Your task to perform on an android device: check the backup settings in the google photos Image 0: 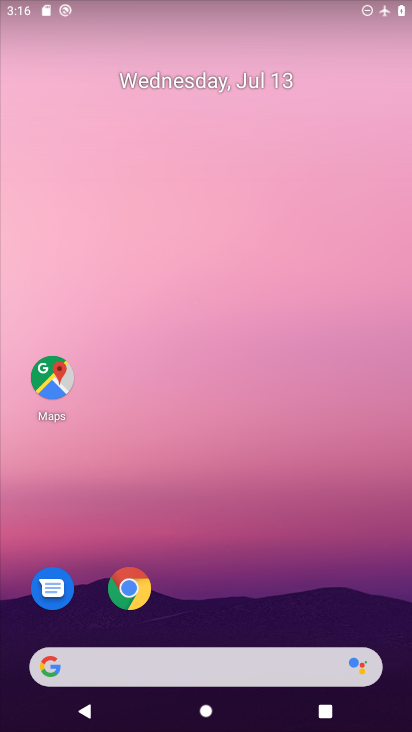
Step 0: drag from (205, 622) to (165, 139)
Your task to perform on an android device: check the backup settings in the google photos Image 1: 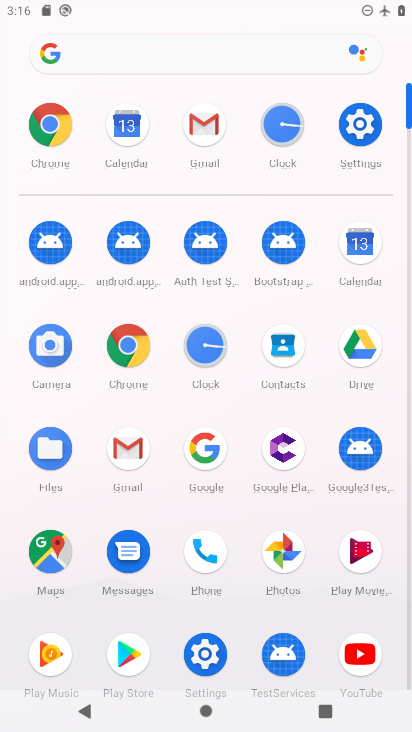
Step 1: click (280, 549)
Your task to perform on an android device: check the backup settings in the google photos Image 2: 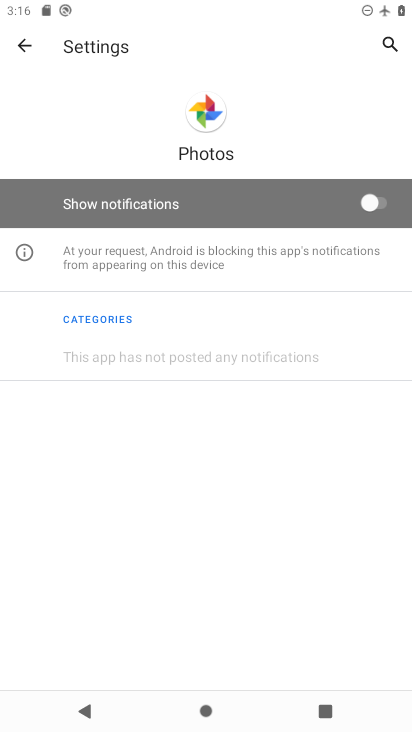
Step 2: click (13, 33)
Your task to perform on an android device: check the backup settings in the google photos Image 3: 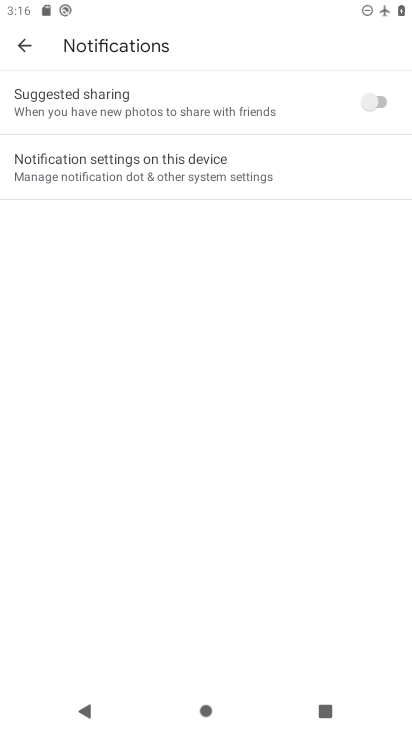
Step 3: click (25, 42)
Your task to perform on an android device: check the backup settings in the google photos Image 4: 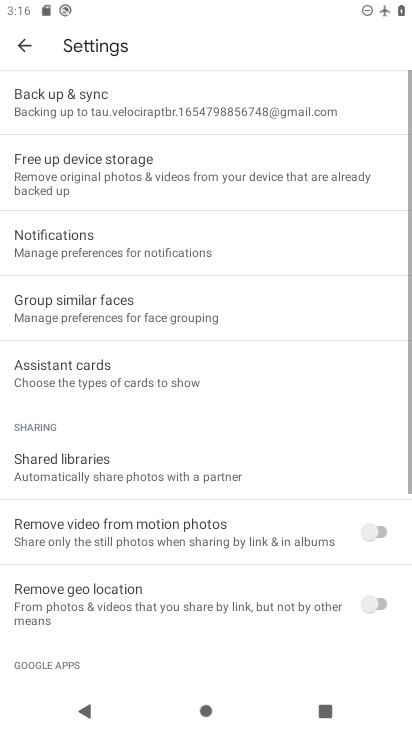
Step 4: click (17, 45)
Your task to perform on an android device: check the backup settings in the google photos Image 5: 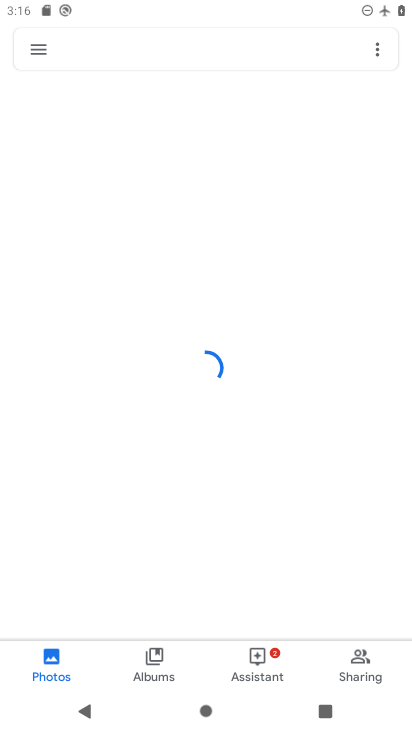
Step 5: drag from (31, 46) to (49, 300)
Your task to perform on an android device: check the backup settings in the google photos Image 6: 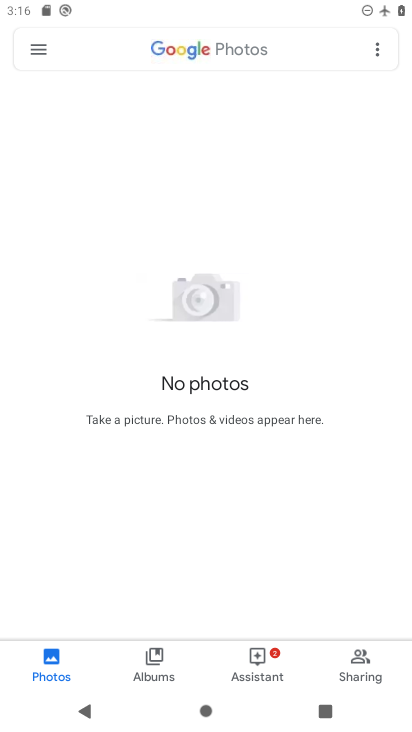
Step 6: click (32, 37)
Your task to perform on an android device: check the backup settings in the google photos Image 7: 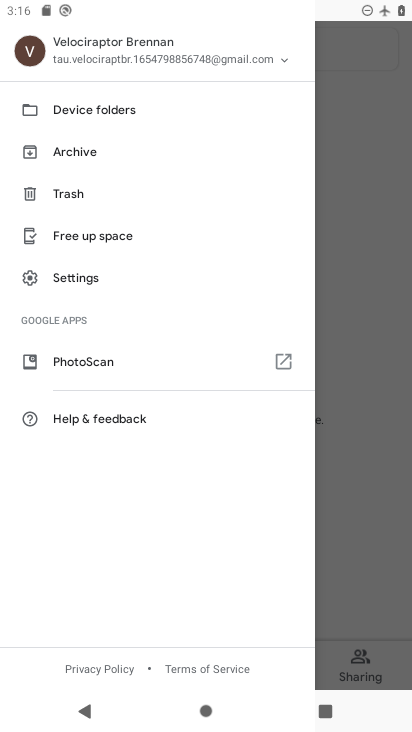
Step 7: click (73, 267)
Your task to perform on an android device: check the backup settings in the google photos Image 8: 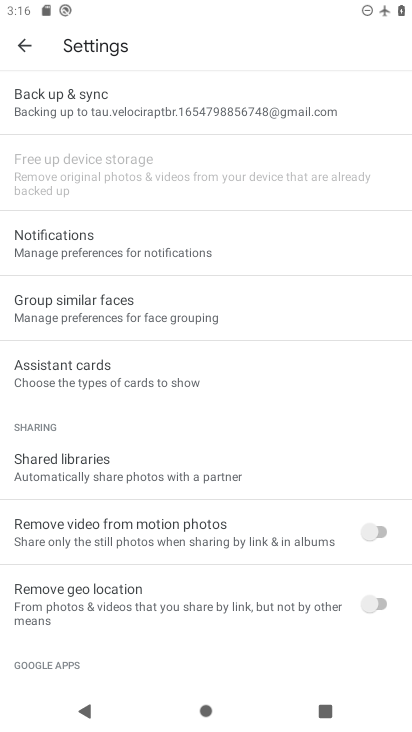
Step 8: drag from (134, 256) to (144, 192)
Your task to perform on an android device: check the backup settings in the google photos Image 9: 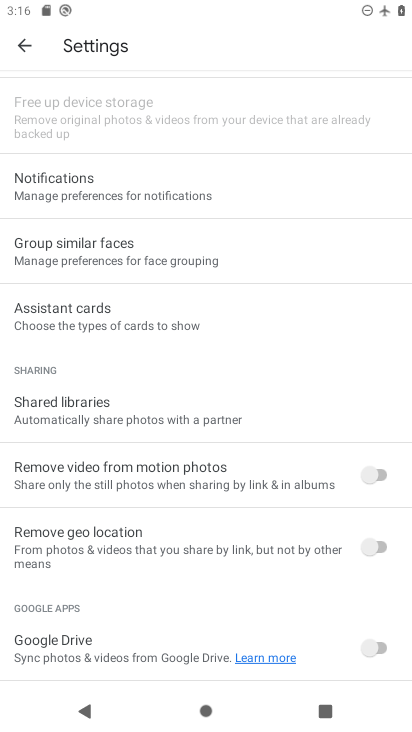
Step 9: drag from (138, 107) to (133, 240)
Your task to perform on an android device: check the backup settings in the google photos Image 10: 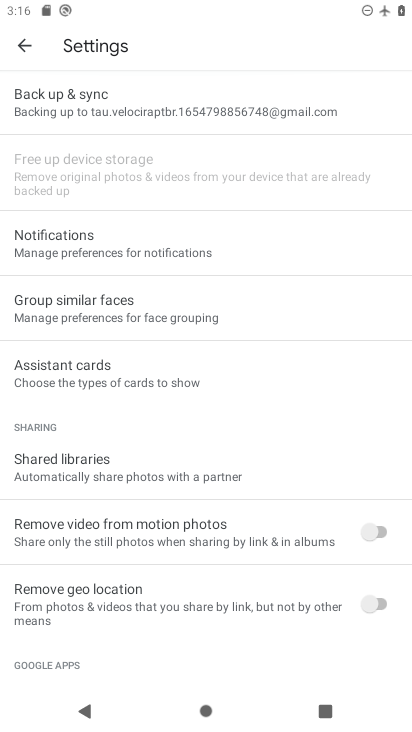
Step 10: click (124, 105)
Your task to perform on an android device: check the backup settings in the google photos Image 11: 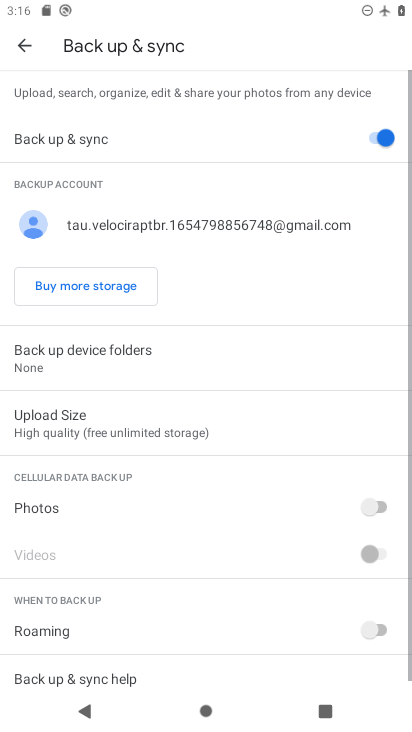
Step 11: task complete